Your task to perform on an android device: Go to internet settings Image 0: 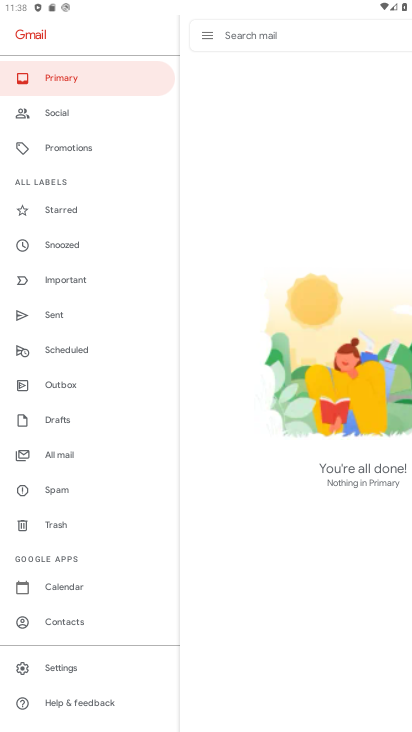
Step 0: press home button
Your task to perform on an android device: Go to internet settings Image 1: 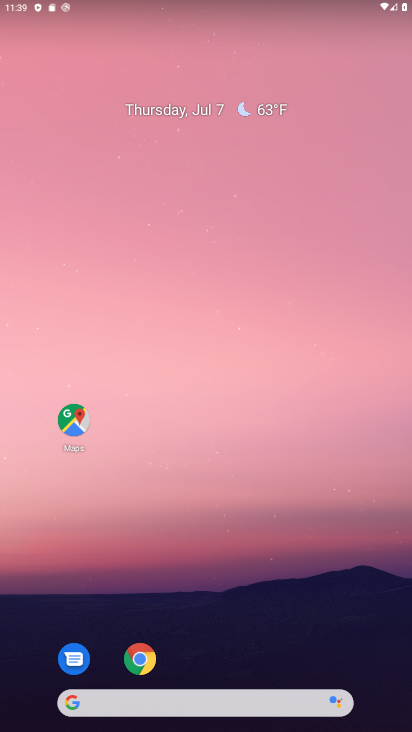
Step 1: drag from (227, 632) to (313, 19)
Your task to perform on an android device: Go to internet settings Image 2: 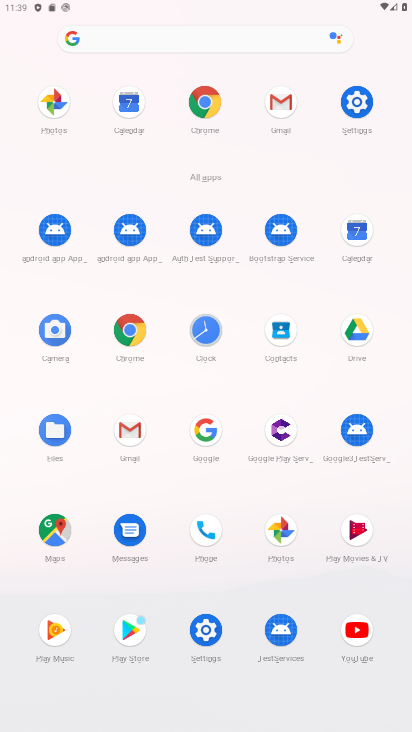
Step 2: click (356, 113)
Your task to perform on an android device: Go to internet settings Image 3: 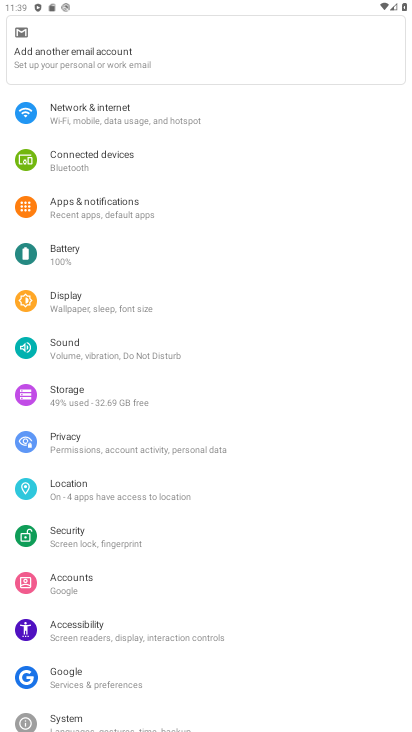
Step 3: click (110, 120)
Your task to perform on an android device: Go to internet settings Image 4: 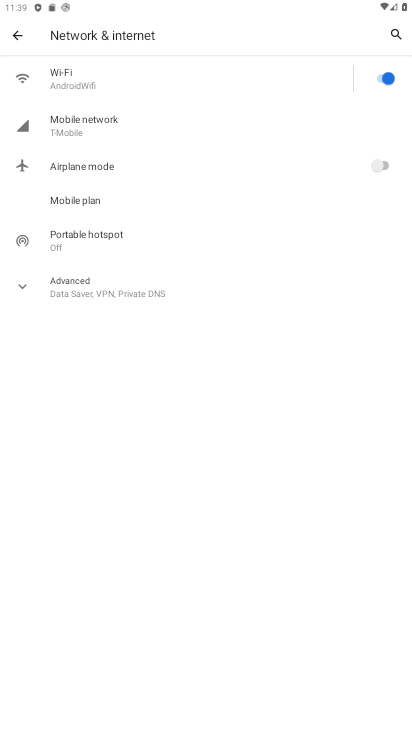
Step 4: task complete